Your task to perform on an android device: add a contact Image 0: 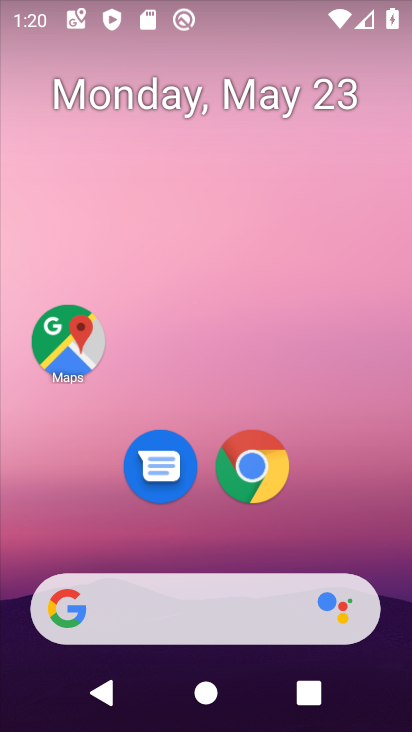
Step 0: drag from (340, 534) to (288, 89)
Your task to perform on an android device: add a contact Image 1: 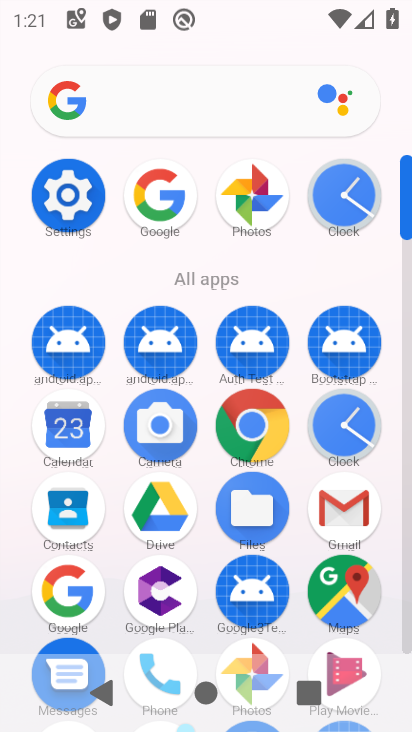
Step 1: click (70, 511)
Your task to perform on an android device: add a contact Image 2: 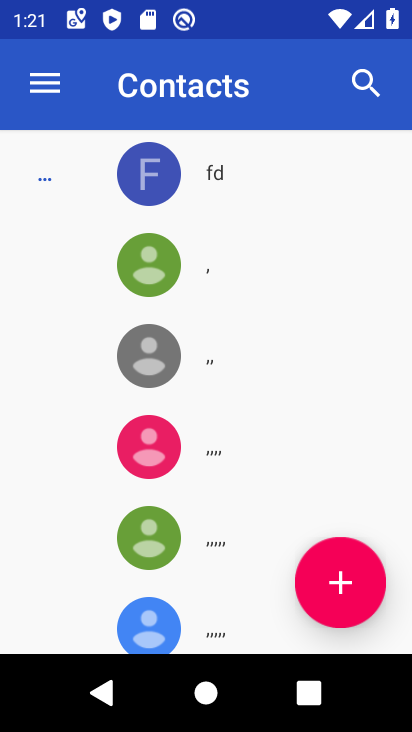
Step 2: click (341, 577)
Your task to perform on an android device: add a contact Image 3: 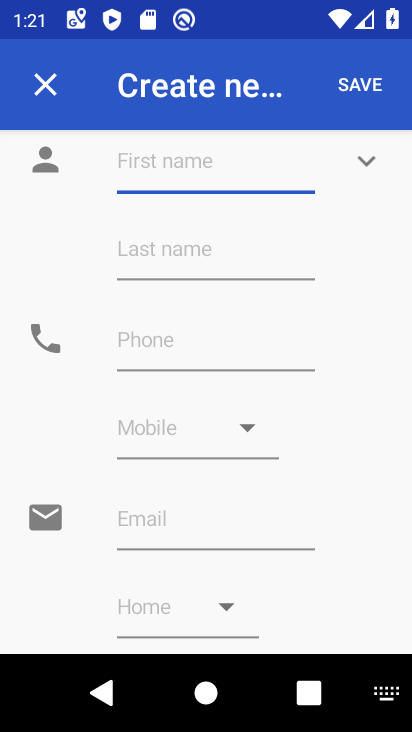
Step 3: click (190, 173)
Your task to perform on an android device: add a contact Image 4: 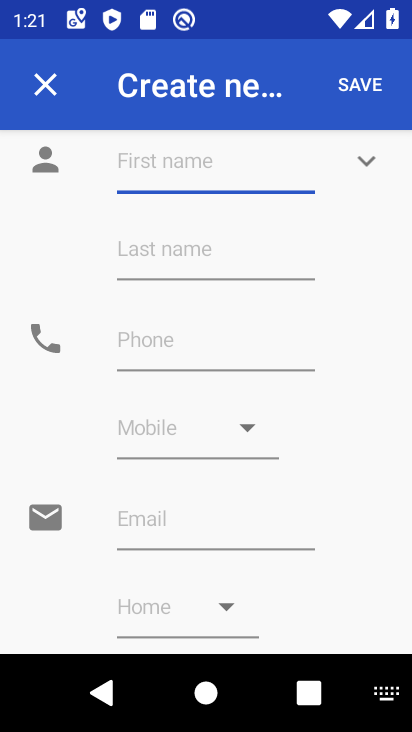
Step 4: type "Rameshwar"
Your task to perform on an android device: add a contact Image 5: 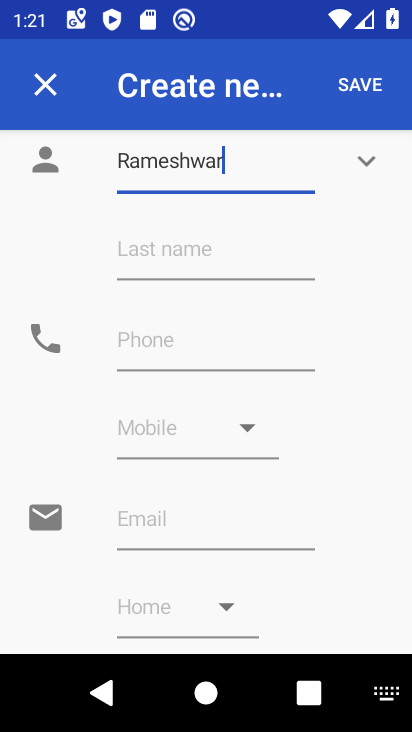
Step 5: click (164, 245)
Your task to perform on an android device: add a contact Image 6: 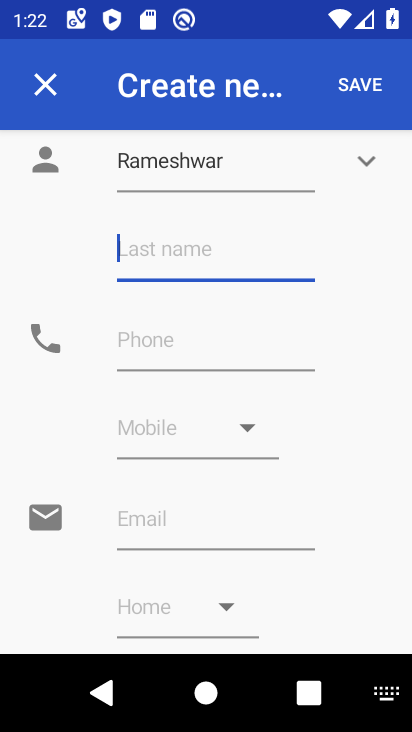
Step 6: type "Tiwary"
Your task to perform on an android device: add a contact Image 7: 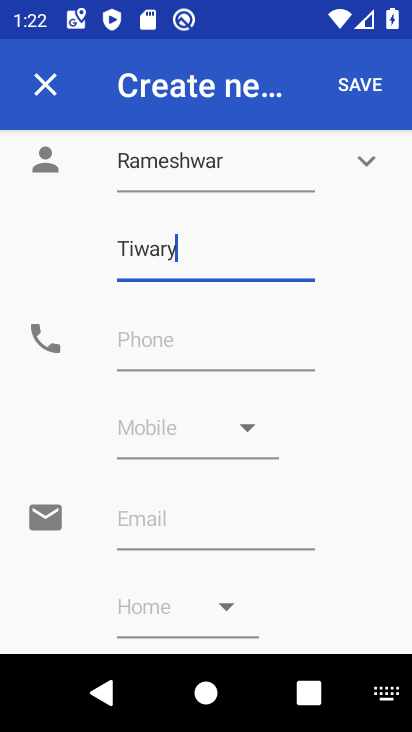
Step 7: click (224, 357)
Your task to perform on an android device: add a contact Image 8: 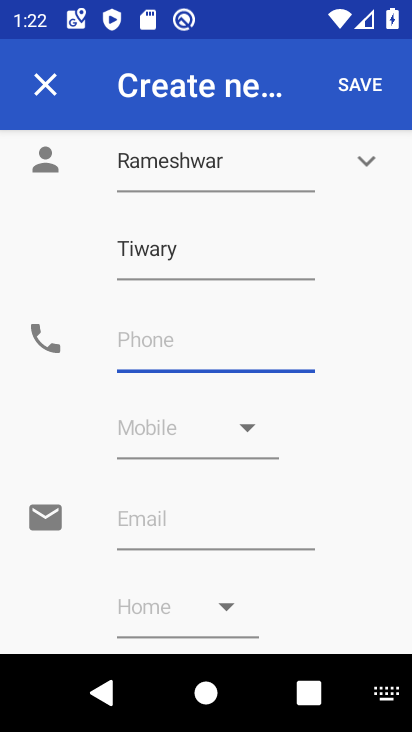
Step 8: type "0987654321"
Your task to perform on an android device: add a contact Image 9: 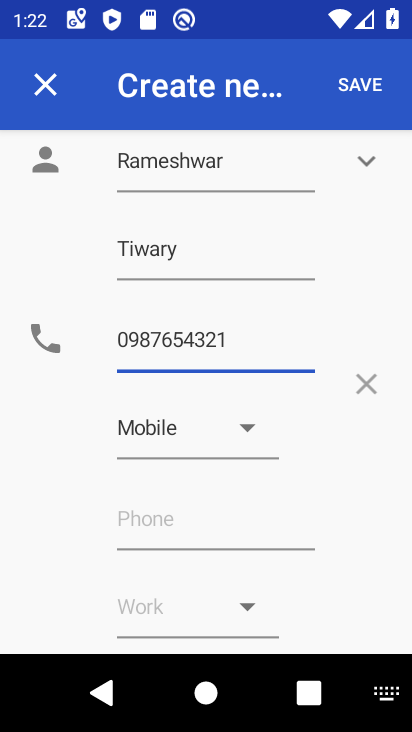
Step 9: click (381, 81)
Your task to perform on an android device: add a contact Image 10: 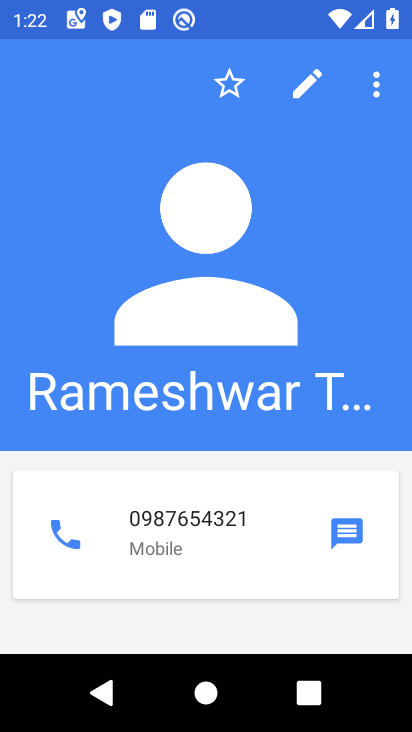
Step 10: task complete